Your task to perform on an android device: Go to internet settings Image 0: 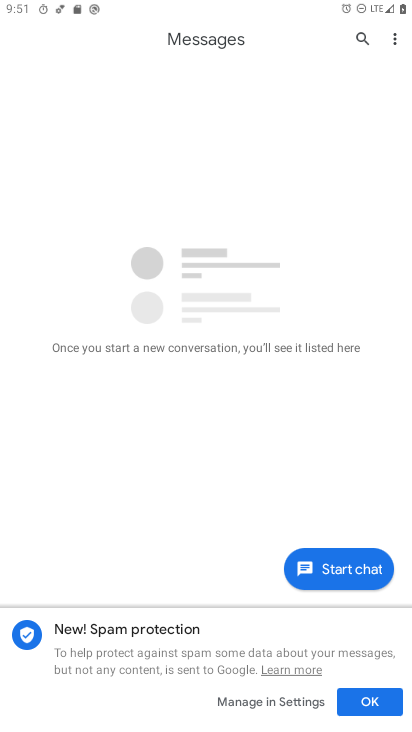
Step 0: press home button
Your task to perform on an android device: Go to internet settings Image 1: 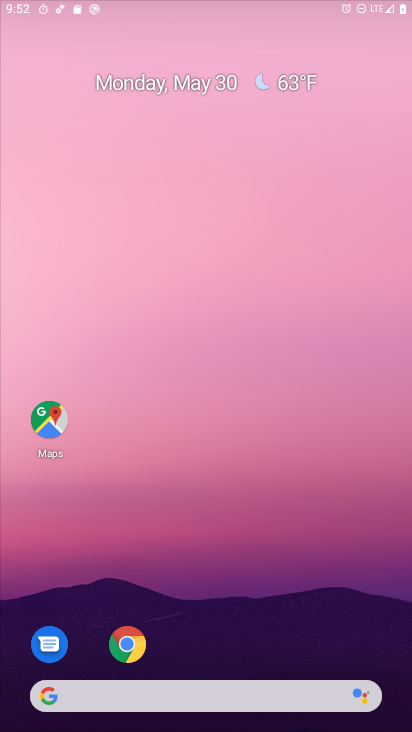
Step 1: drag from (198, 645) to (189, 43)
Your task to perform on an android device: Go to internet settings Image 2: 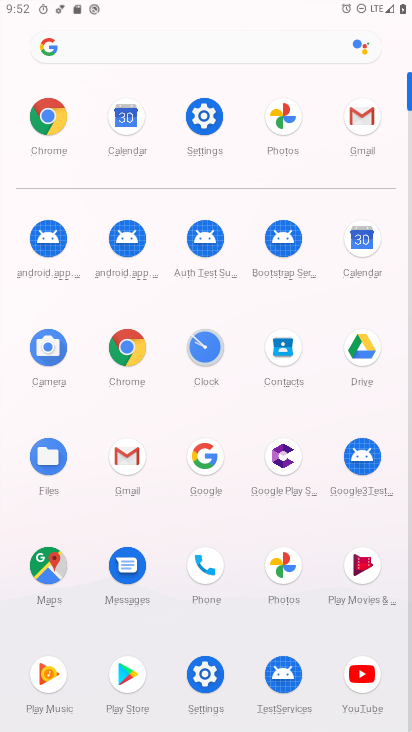
Step 2: click (206, 677)
Your task to perform on an android device: Go to internet settings Image 3: 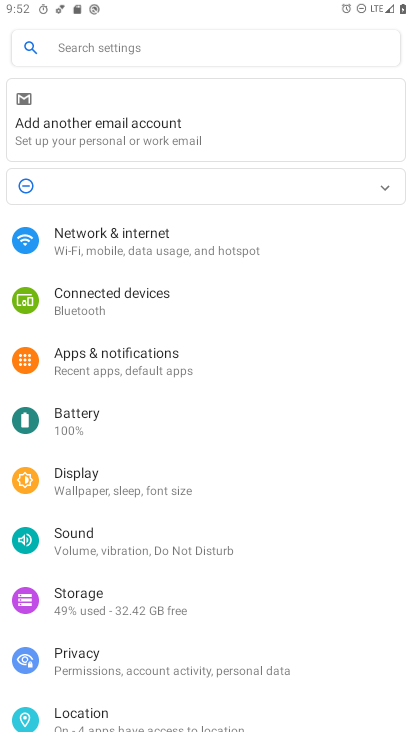
Step 3: click (147, 237)
Your task to perform on an android device: Go to internet settings Image 4: 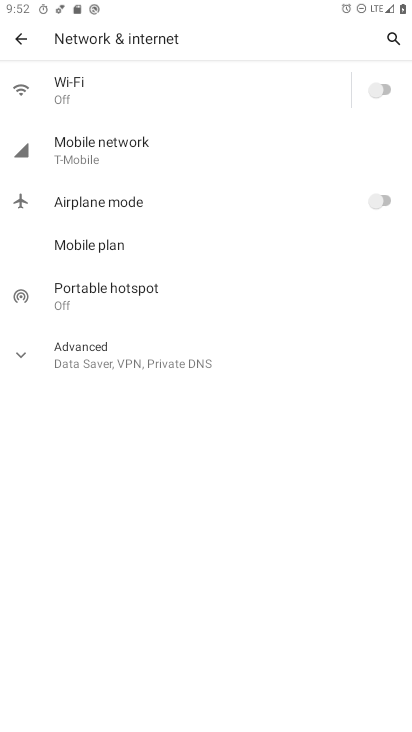
Step 4: click (93, 83)
Your task to perform on an android device: Go to internet settings Image 5: 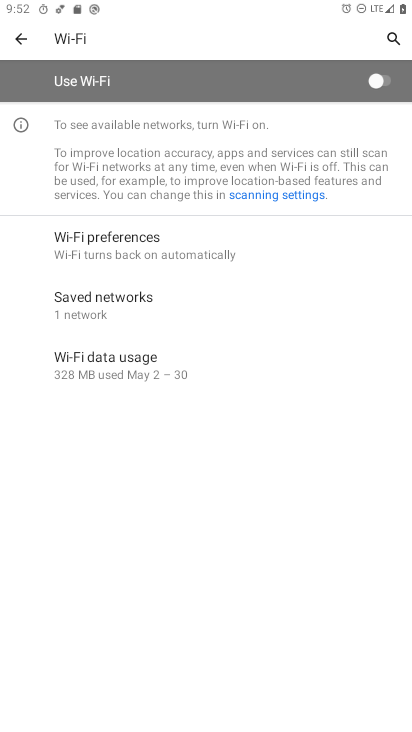
Step 5: click (381, 80)
Your task to perform on an android device: Go to internet settings Image 6: 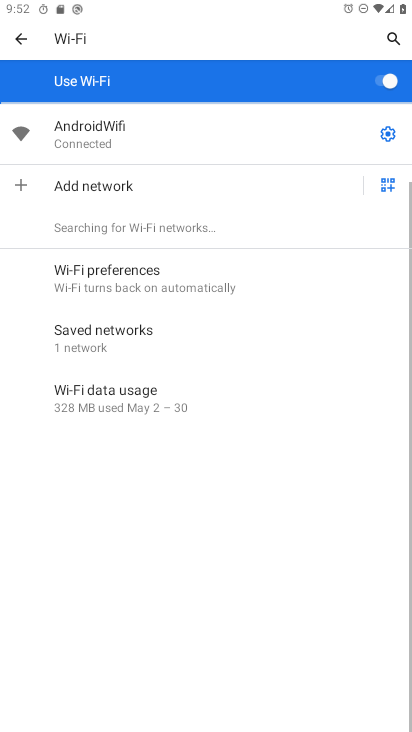
Step 6: click (126, 133)
Your task to perform on an android device: Go to internet settings Image 7: 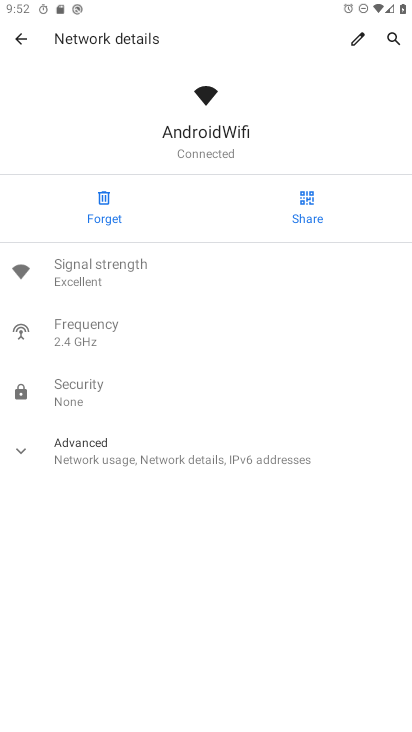
Step 7: task complete